Your task to perform on an android device: Open Google Chrome and click the shortcut for Amazon.com Image 0: 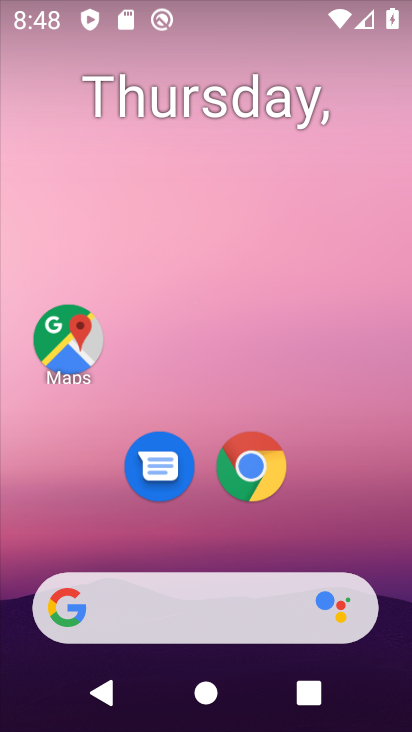
Step 0: press home button
Your task to perform on an android device: Open Google Chrome and click the shortcut for Amazon.com Image 1: 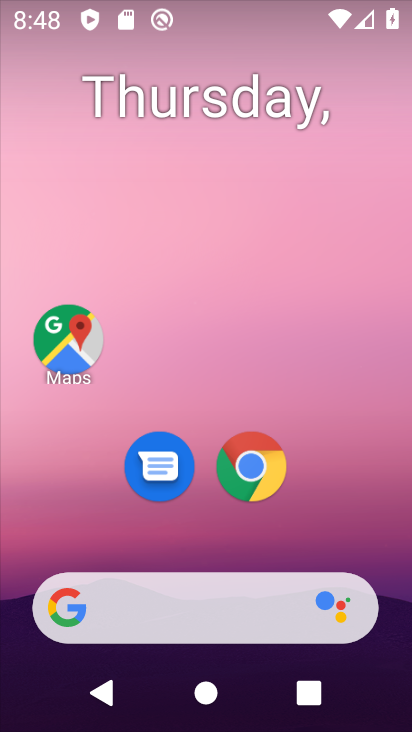
Step 1: click (253, 477)
Your task to perform on an android device: Open Google Chrome and click the shortcut for Amazon.com Image 2: 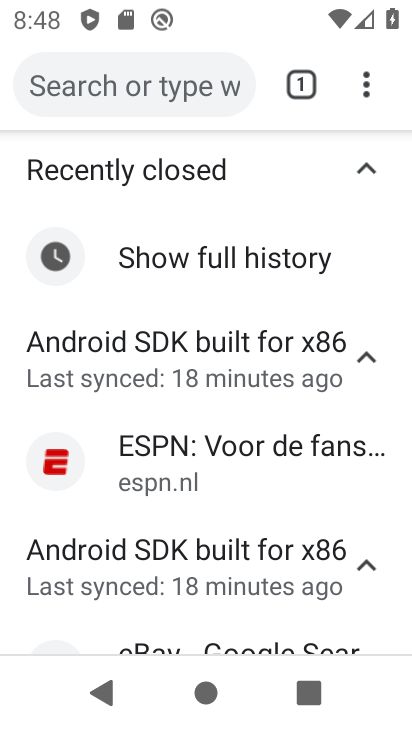
Step 2: drag from (363, 98) to (271, 174)
Your task to perform on an android device: Open Google Chrome and click the shortcut for Amazon.com Image 3: 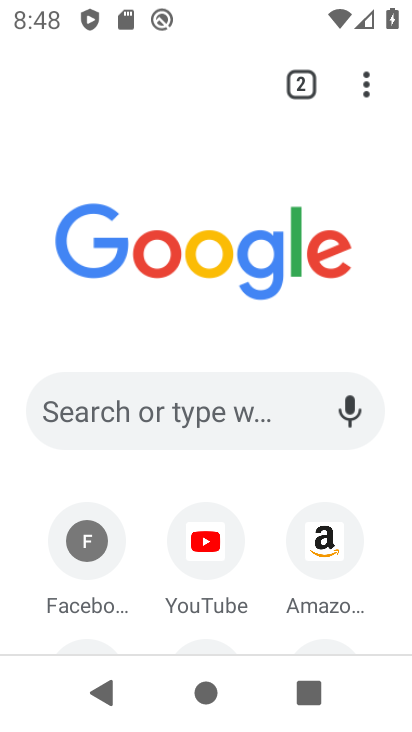
Step 3: drag from (204, 474) to (315, 251)
Your task to perform on an android device: Open Google Chrome and click the shortcut for Amazon.com Image 4: 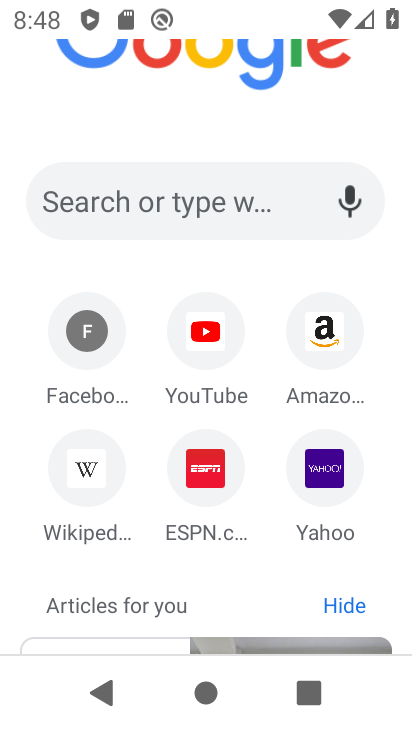
Step 4: click (327, 333)
Your task to perform on an android device: Open Google Chrome and click the shortcut for Amazon.com Image 5: 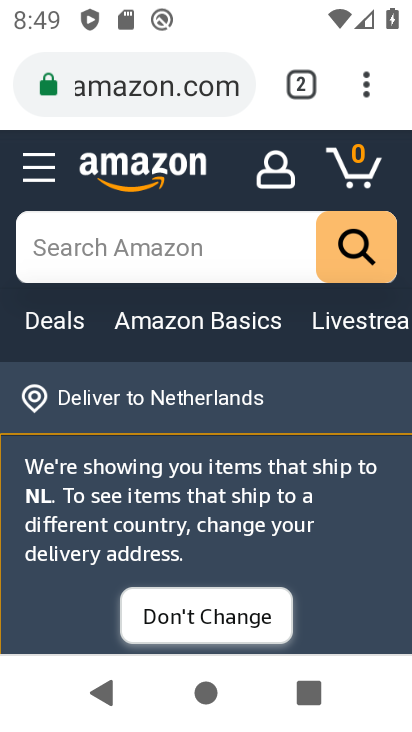
Step 5: task complete